Your task to perform on an android device: Is it going to rain tomorrow? Image 0: 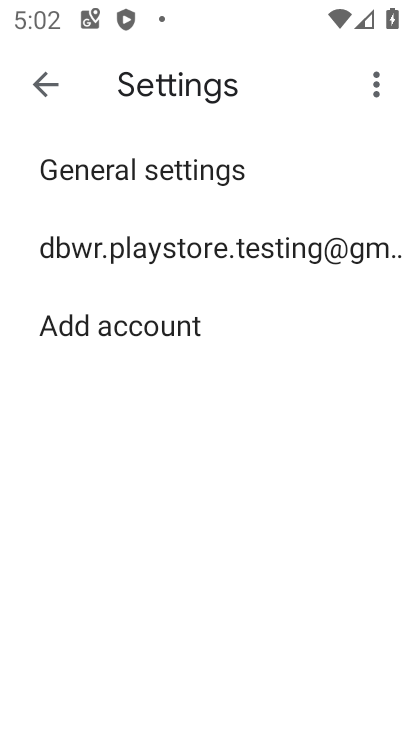
Step 0: press home button
Your task to perform on an android device: Is it going to rain tomorrow? Image 1: 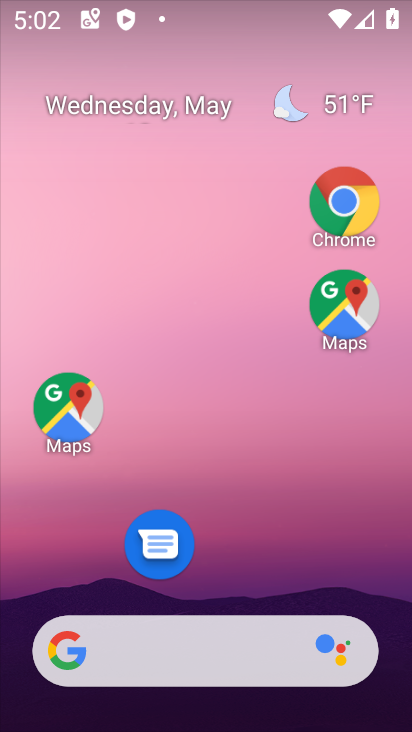
Step 1: drag from (259, 576) to (157, 168)
Your task to perform on an android device: Is it going to rain tomorrow? Image 2: 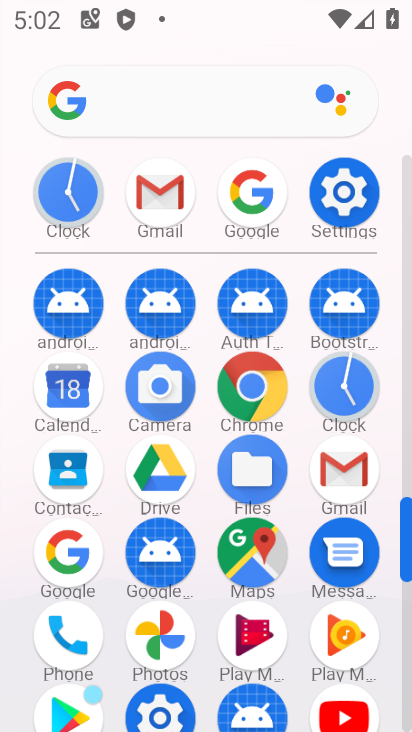
Step 2: click (70, 569)
Your task to perform on an android device: Is it going to rain tomorrow? Image 3: 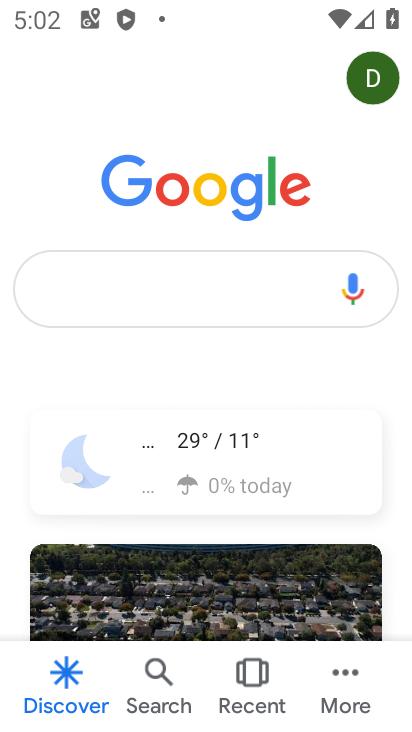
Step 3: click (175, 296)
Your task to perform on an android device: Is it going to rain tomorrow? Image 4: 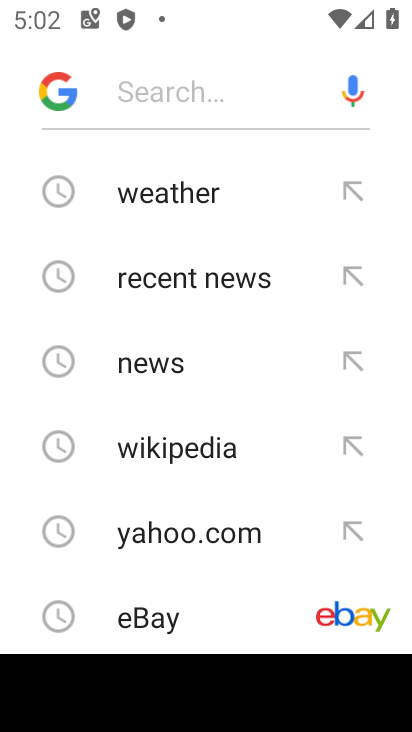
Step 4: click (151, 199)
Your task to perform on an android device: Is it going to rain tomorrow? Image 5: 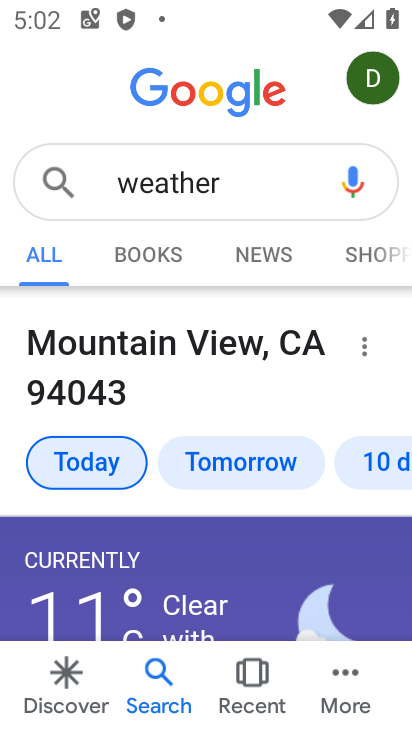
Step 5: click (239, 474)
Your task to perform on an android device: Is it going to rain tomorrow? Image 6: 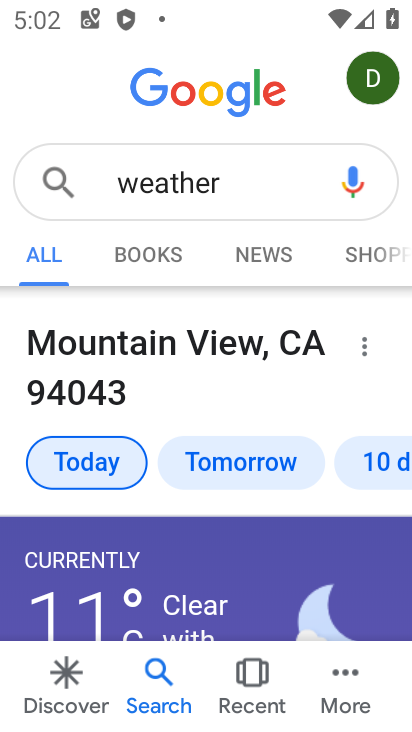
Step 6: click (226, 466)
Your task to perform on an android device: Is it going to rain tomorrow? Image 7: 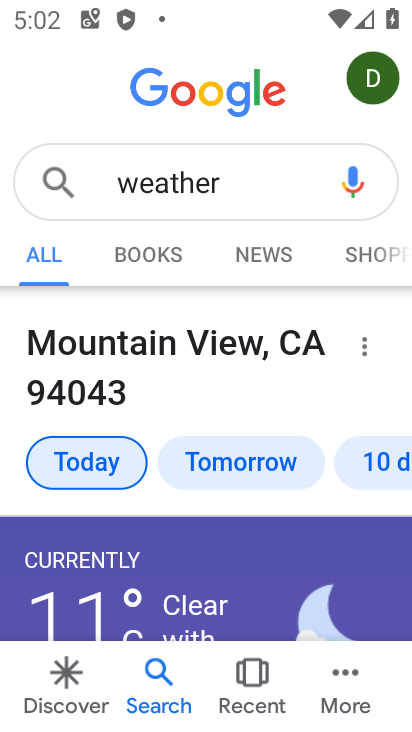
Step 7: click (226, 466)
Your task to perform on an android device: Is it going to rain tomorrow? Image 8: 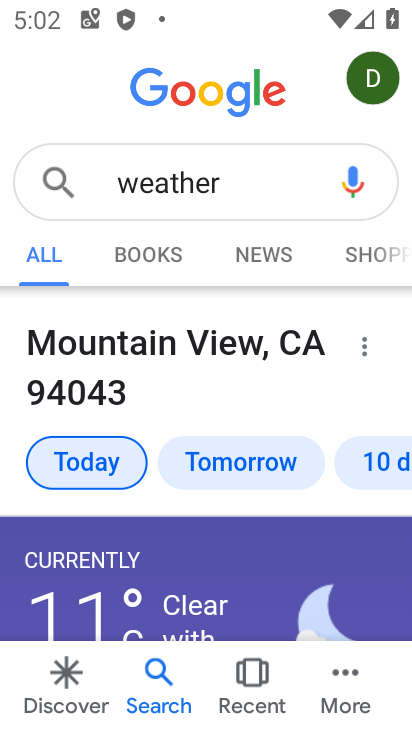
Step 8: click (226, 466)
Your task to perform on an android device: Is it going to rain tomorrow? Image 9: 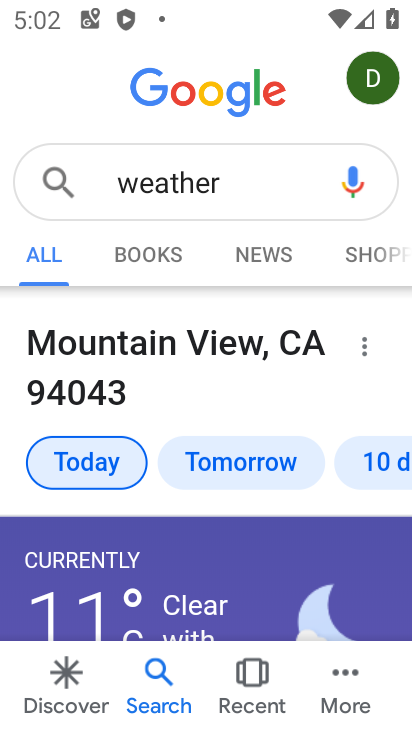
Step 9: click (226, 466)
Your task to perform on an android device: Is it going to rain tomorrow? Image 10: 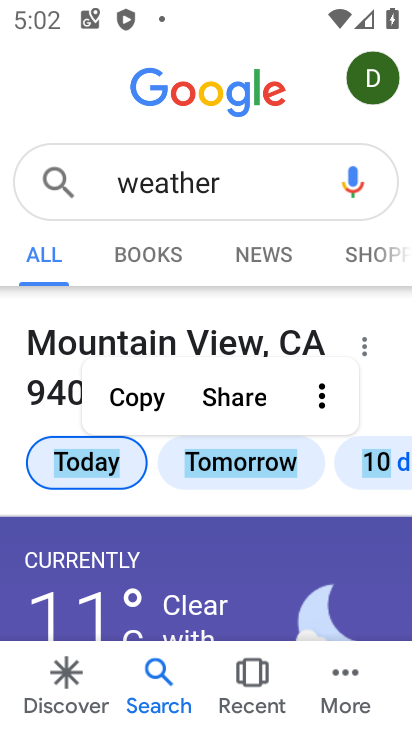
Step 10: click (236, 482)
Your task to perform on an android device: Is it going to rain tomorrow? Image 11: 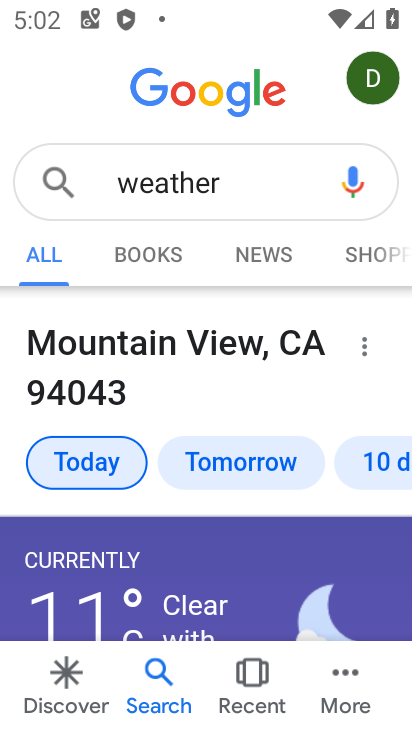
Step 11: click (266, 185)
Your task to perform on an android device: Is it going to rain tomorrow? Image 12: 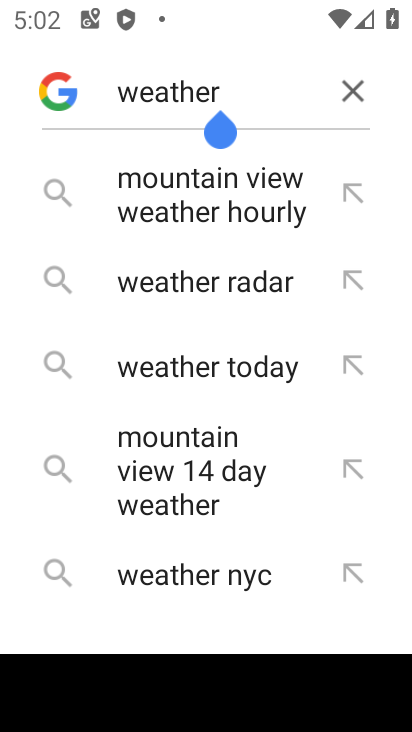
Step 12: click (356, 95)
Your task to perform on an android device: Is it going to rain tomorrow? Image 13: 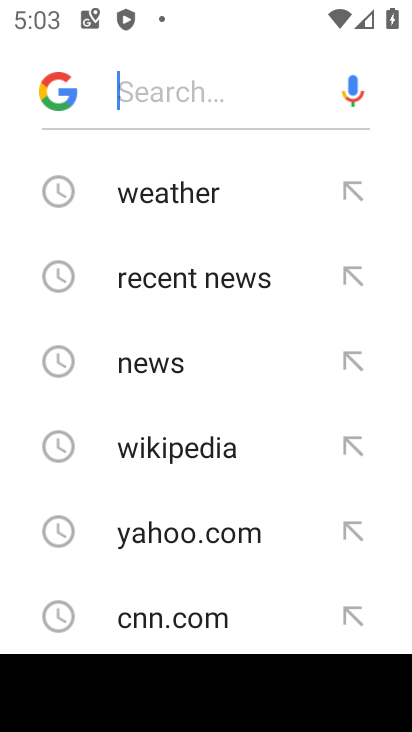
Step 13: type "is it going to rain tomorrow?"
Your task to perform on an android device: Is it going to rain tomorrow? Image 14: 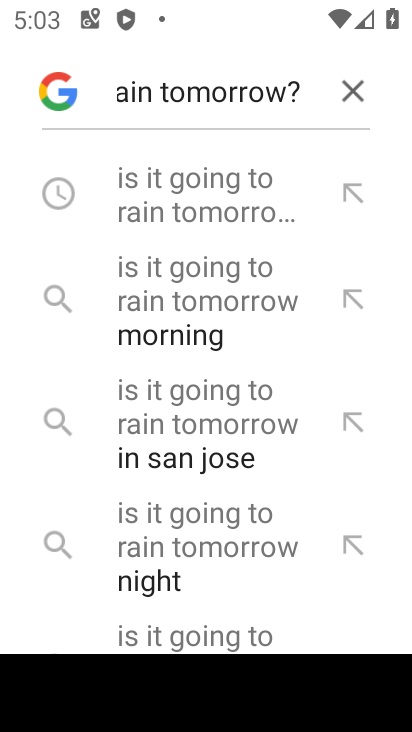
Step 14: click (211, 210)
Your task to perform on an android device: Is it going to rain tomorrow? Image 15: 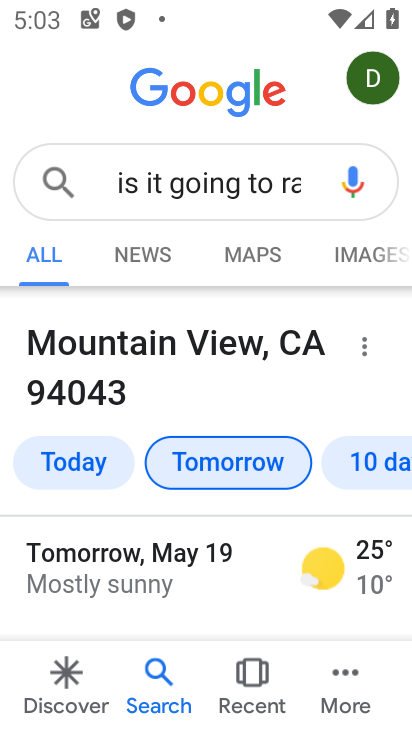
Step 15: click (279, 188)
Your task to perform on an android device: Is it going to rain tomorrow? Image 16: 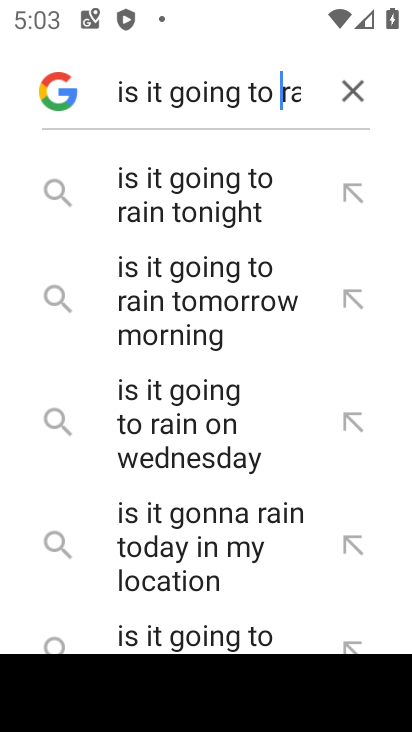
Step 16: click (362, 95)
Your task to perform on an android device: Is it going to rain tomorrow? Image 17: 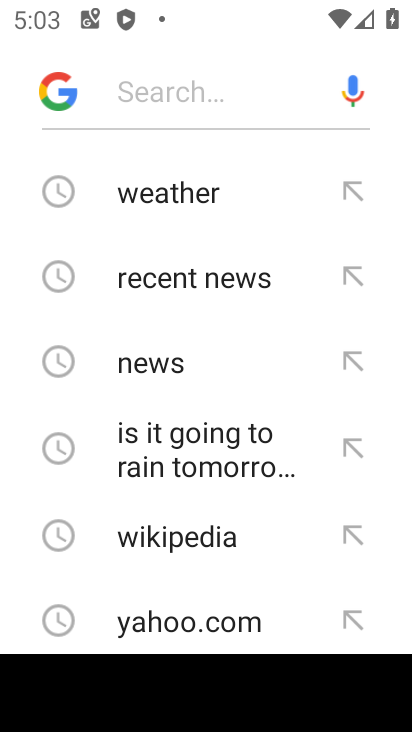
Step 17: task complete